Your task to perform on an android device: Go to ESPN.com Image 0: 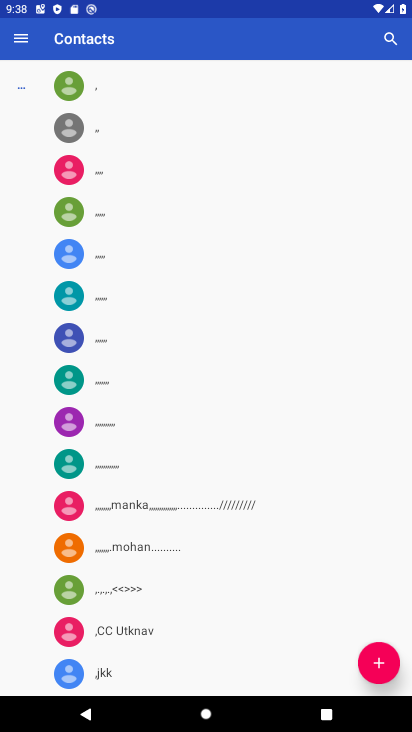
Step 0: press home button
Your task to perform on an android device: Go to ESPN.com Image 1: 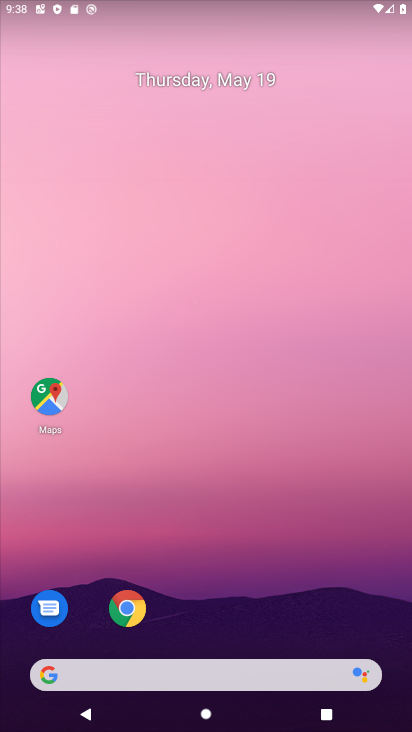
Step 1: click (124, 610)
Your task to perform on an android device: Go to ESPN.com Image 2: 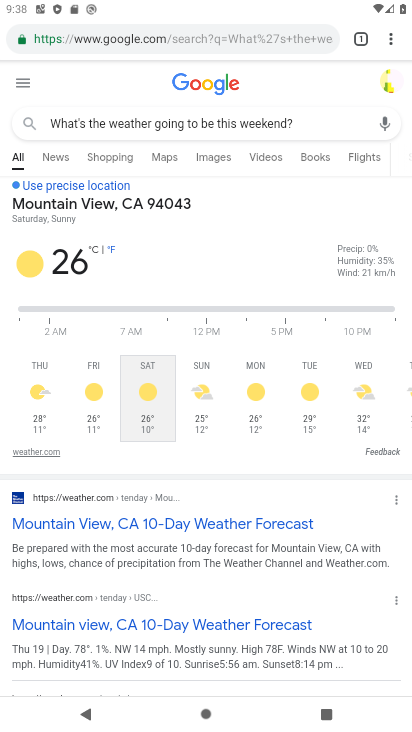
Step 2: click (115, 43)
Your task to perform on an android device: Go to ESPN.com Image 3: 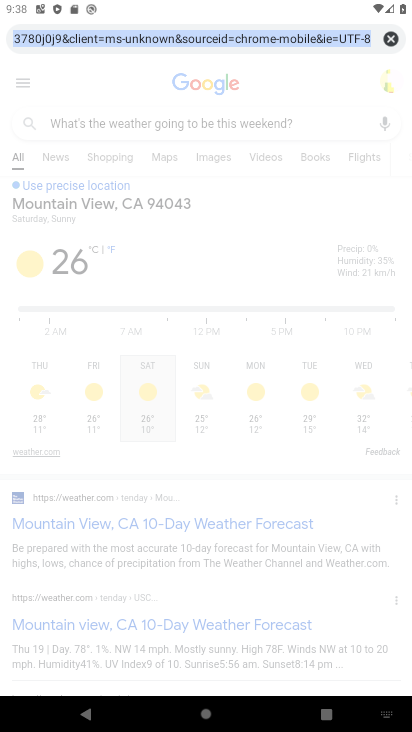
Step 3: type "ESPN.com"
Your task to perform on an android device: Go to ESPN.com Image 4: 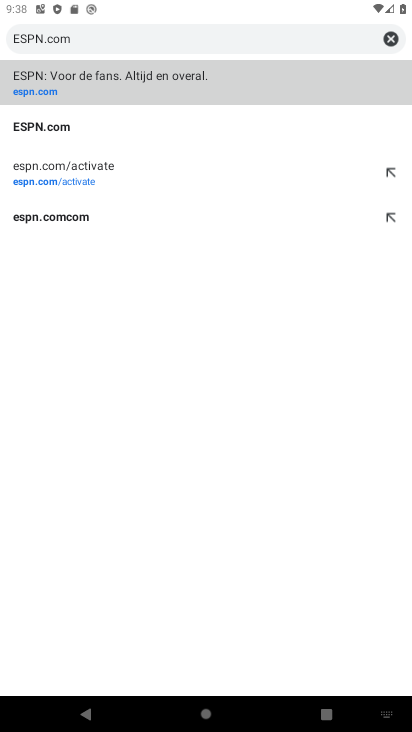
Step 4: click (35, 132)
Your task to perform on an android device: Go to ESPN.com Image 5: 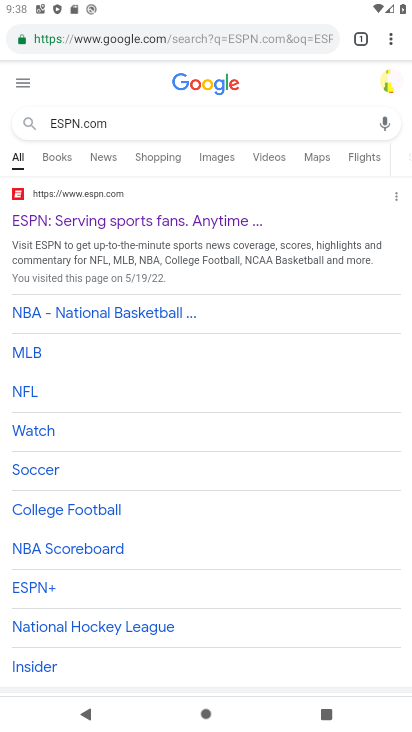
Step 5: task complete